Your task to perform on an android device: turn off wifi Image 0: 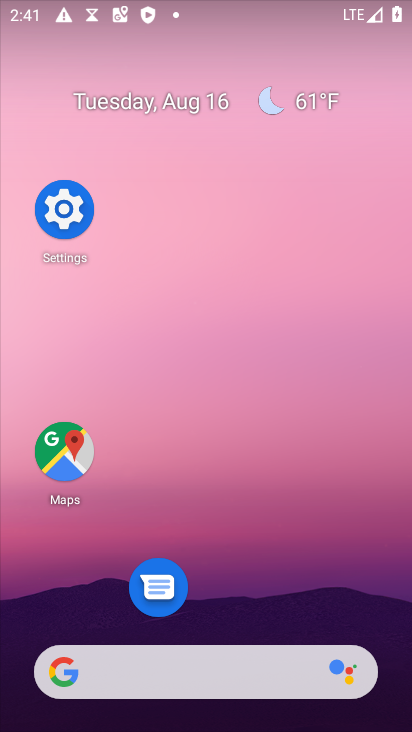
Step 0: drag from (157, 8) to (190, 507)
Your task to perform on an android device: turn off wifi Image 1: 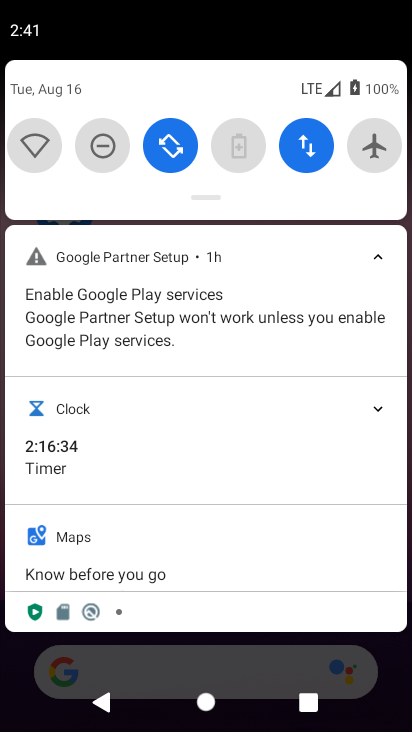
Step 1: task complete